Your task to perform on an android device: find snoozed emails in the gmail app Image 0: 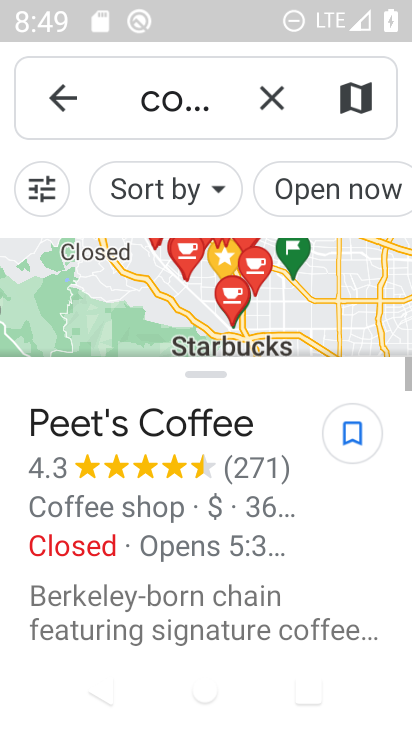
Step 0: press home button
Your task to perform on an android device: find snoozed emails in the gmail app Image 1: 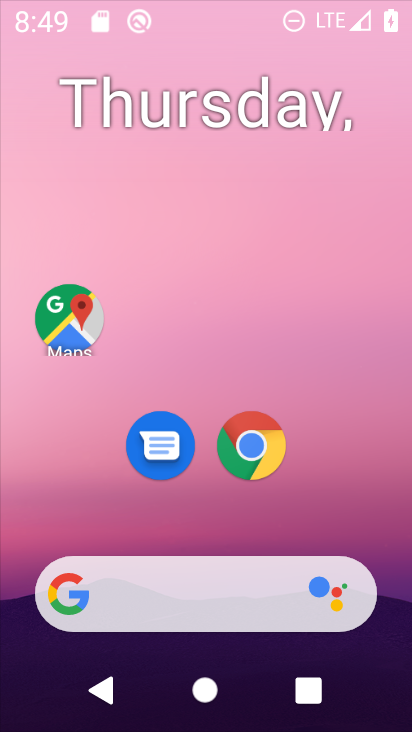
Step 1: drag from (391, 644) to (309, 57)
Your task to perform on an android device: find snoozed emails in the gmail app Image 2: 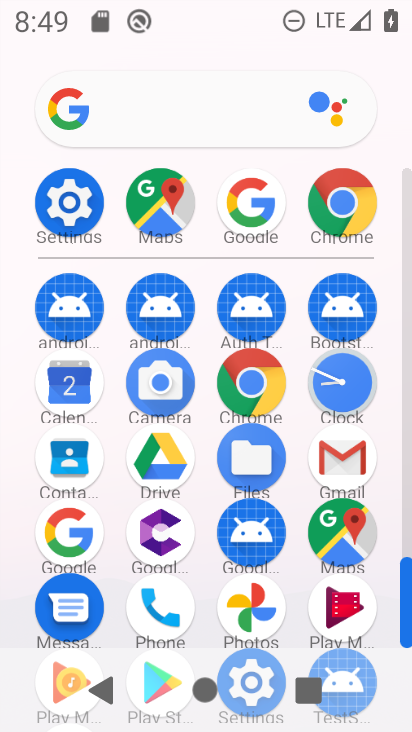
Step 2: click (321, 457)
Your task to perform on an android device: find snoozed emails in the gmail app Image 3: 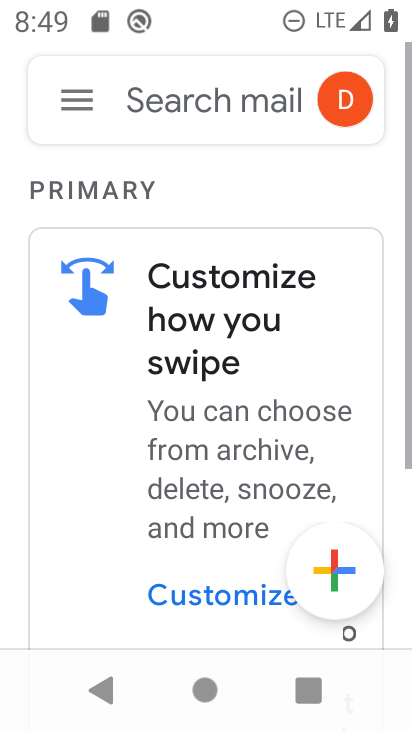
Step 3: click (74, 100)
Your task to perform on an android device: find snoozed emails in the gmail app Image 4: 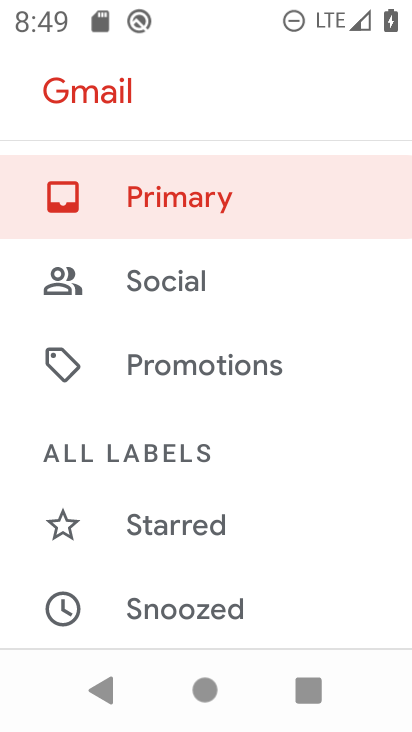
Step 4: drag from (234, 553) to (221, 119)
Your task to perform on an android device: find snoozed emails in the gmail app Image 5: 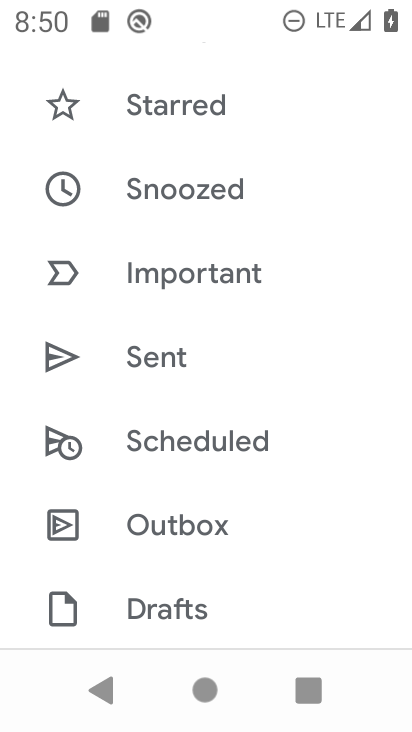
Step 5: click (194, 215)
Your task to perform on an android device: find snoozed emails in the gmail app Image 6: 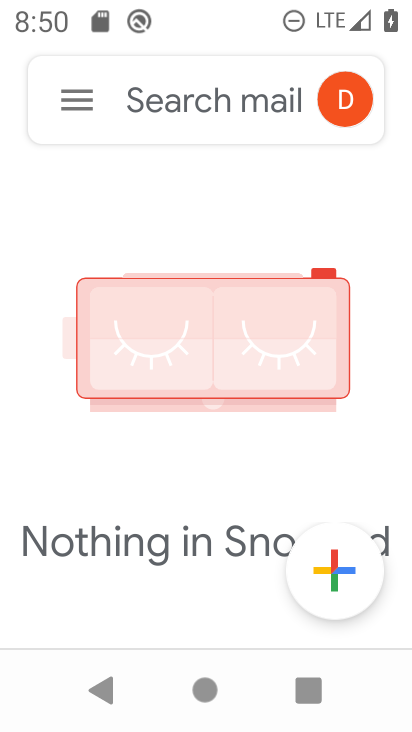
Step 6: task complete